Your task to perform on an android device: move a message to another label in the gmail app Image 0: 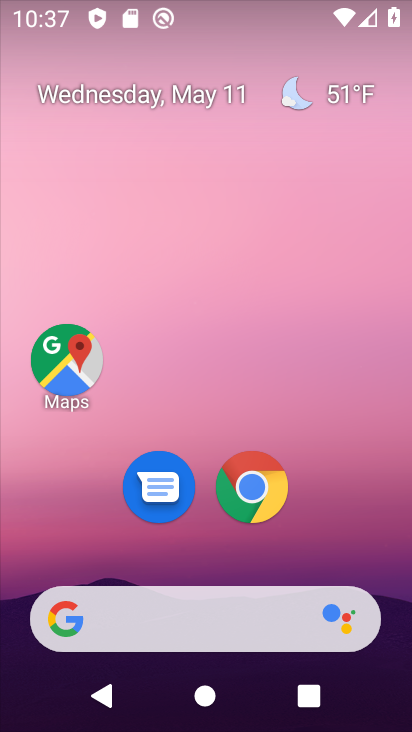
Step 0: drag from (313, 526) to (317, 148)
Your task to perform on an android device: move a message to another label in the gmail app Image 1: 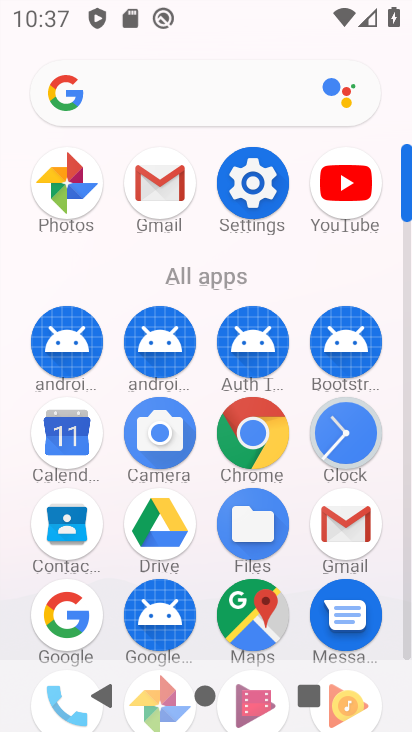
Step 1: click (156, 204)
Your task to perform on an android device: move a message to another label in the gmail app Image 2: 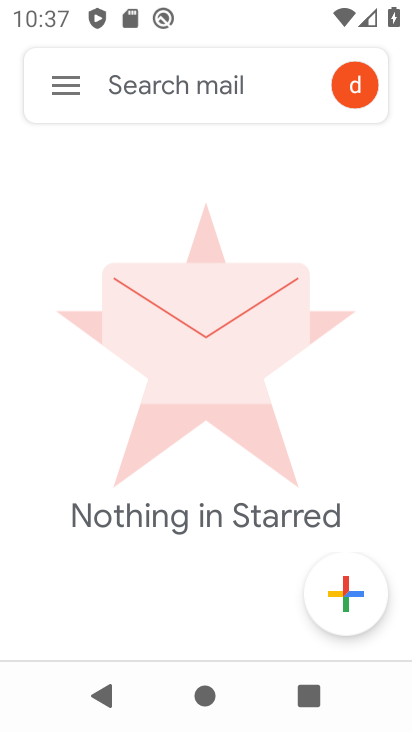
Step 2: click (64, 95)
Your task to perform on an android device: move a message to another label in the gmail app Image 3: 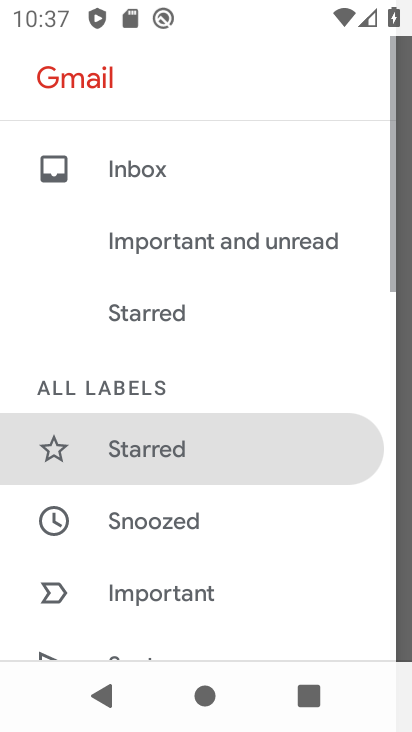
Step 3: click (130, 172)
Your task to perform on an android device: move a message to another label in the gmail app Image 4: 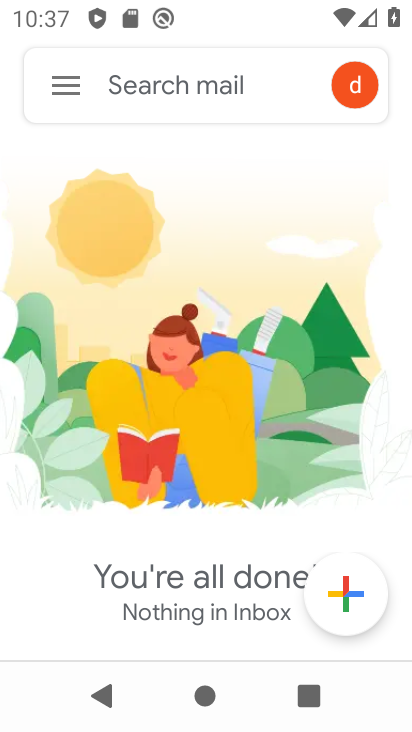
Step 4: task complete